Your task to perform on an android device: What's the price of the Samsung TV? Image 0: 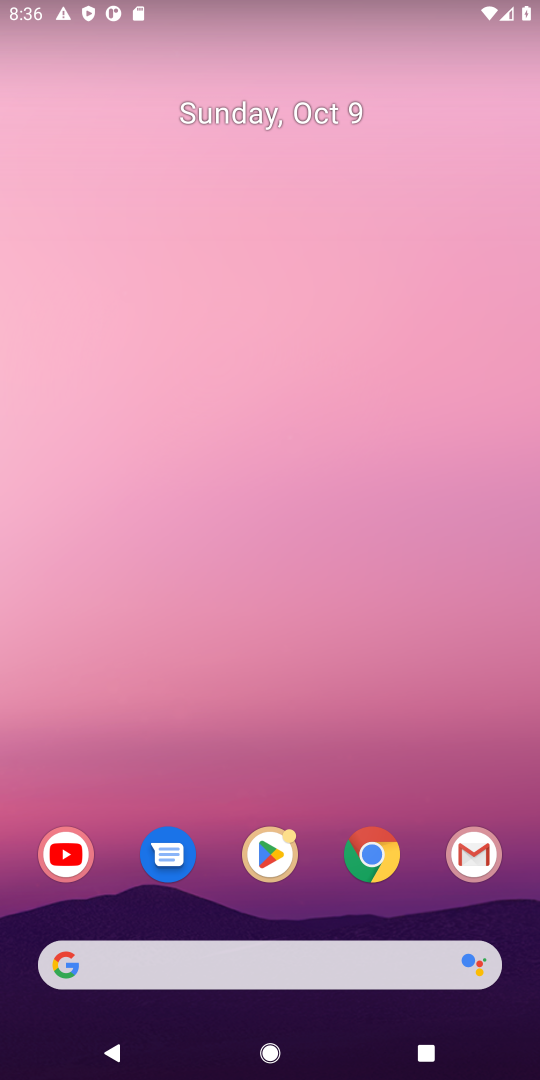
Step 0: click (203, 965)
Your task to perform on an android device: What's the price of the Samsung TV? Image 1: 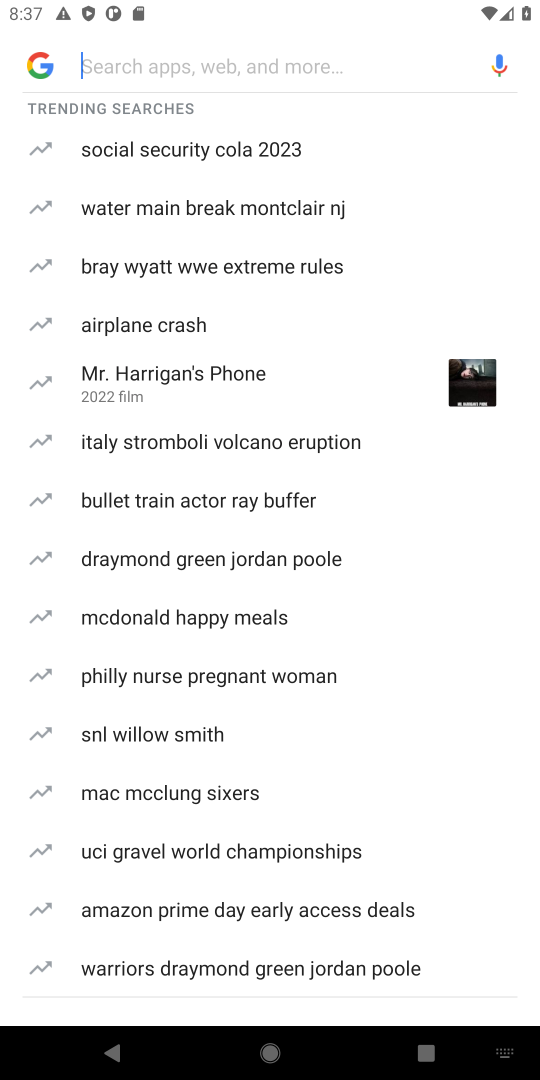
Step 1: type "What's the price of the Samsung TV"
Your task to perform on an android device: What's the price of the Samsung TV? Image 2: 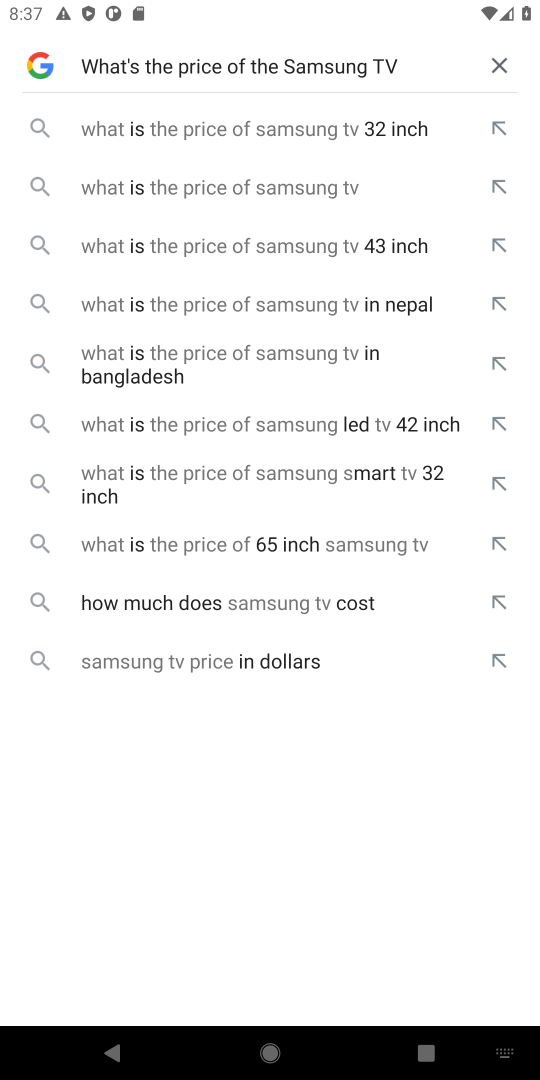
Step 2: click (304, 201)
Your task to perform on an android device: What's the price of the Samsung TV? Image 3: 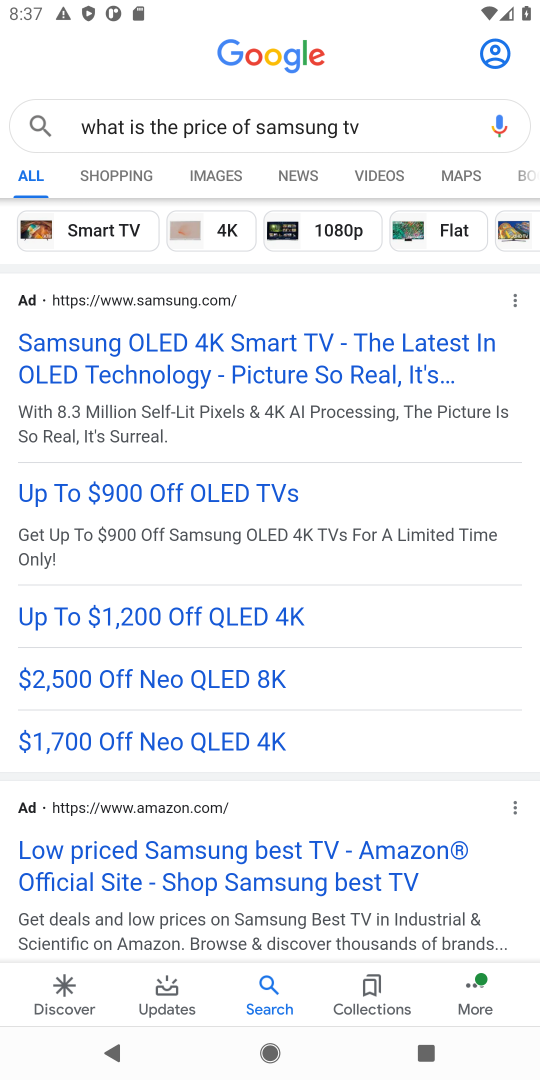
Step 3: task complete